Your task to perform on an android device: toggle notifications settings in the gmail app Image 0: 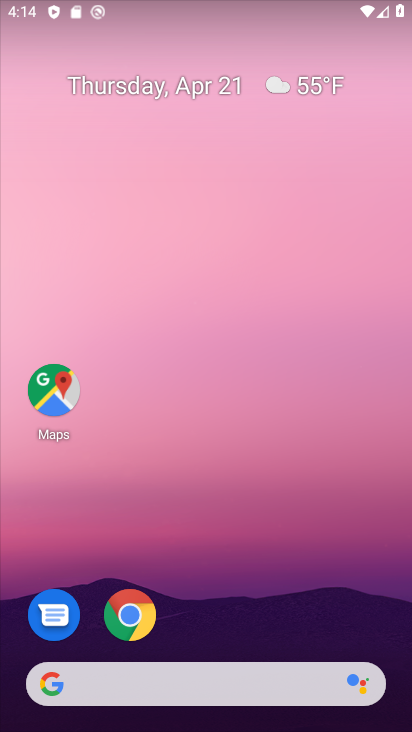
Step 0: drag from (235, 555) to (87, 28)
Your task to perform on an android device: toggle notifications settings in the gmail app Image 1: 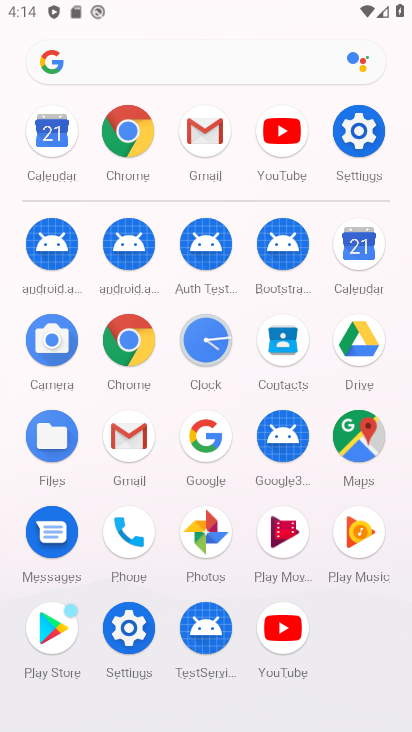
Step 1: click (126, 436)
Your task to perform on an android device: toggle notifications settings in the gmail app Image 2: 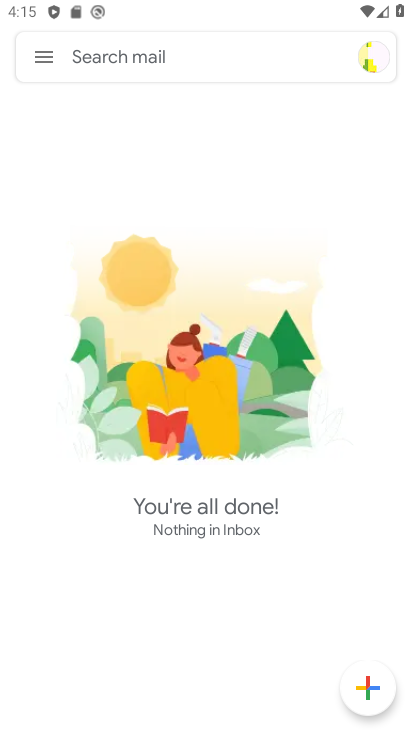
Step 2: click (42, 56)
Your task to perform on an android device: toggle notifications settings in the gmail app Image 3: 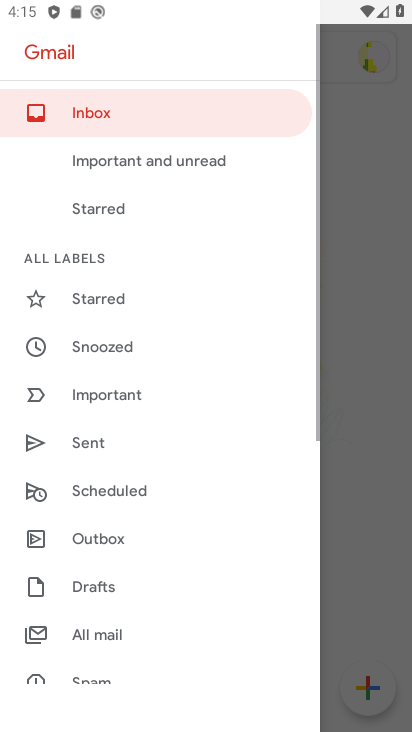
Step 3: drag from (167, 503) to (148, 153)
Your task to perform on an android device: toggle notifications settings in the gmail app Image 4: 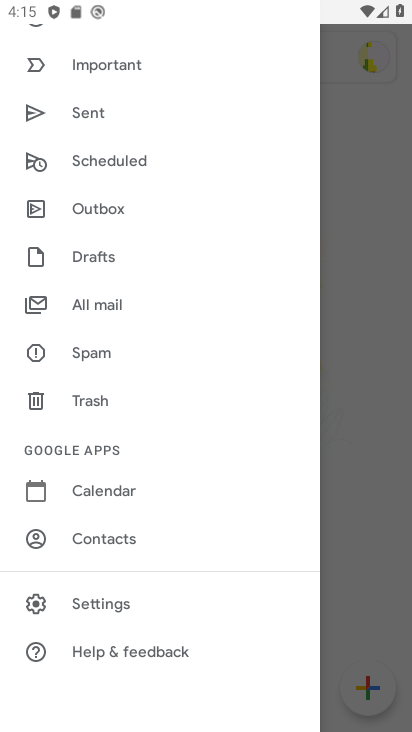
Step 4: drag from (238, 565) to (209, 195)
Your task to perform on an android device: toggle notifications settings in the gmail app Image 5: 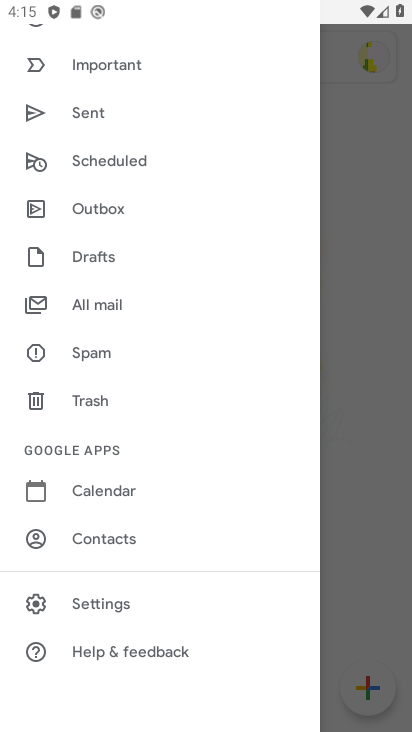
Step 5: click (104, 592)
Your task to perform on an android device: toggle notifications settings in the gmail app Image 6: 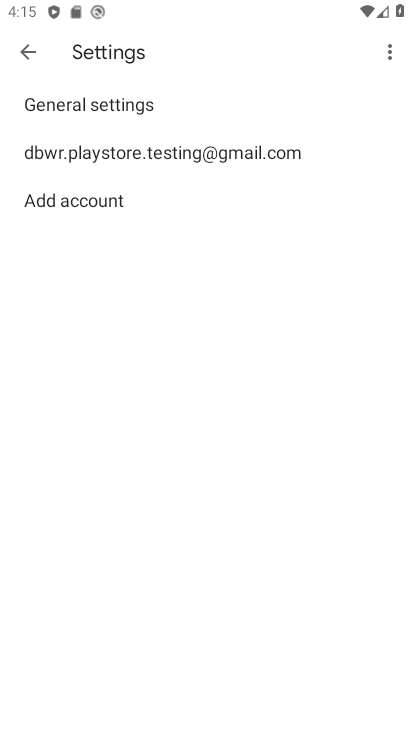
Step 6: click (187, 157)
Your task to perform on an android device: toggle notifications settings in the gmail app Image 7: 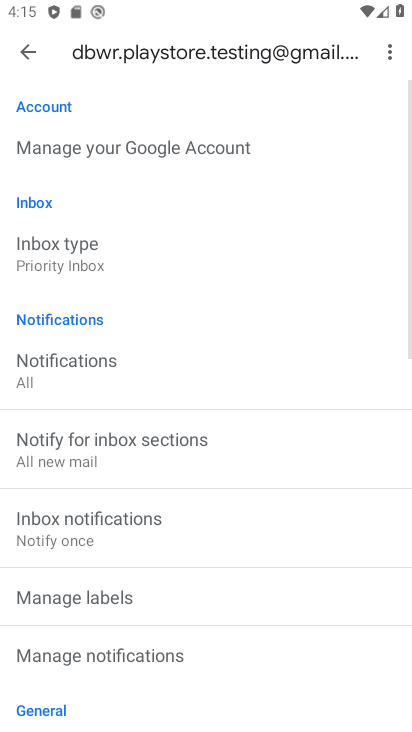
Step 7: drag from (267, 487) to (254, 115)
Your task to perform on an android device: toggle notifications settings in the gmail app Image 8: 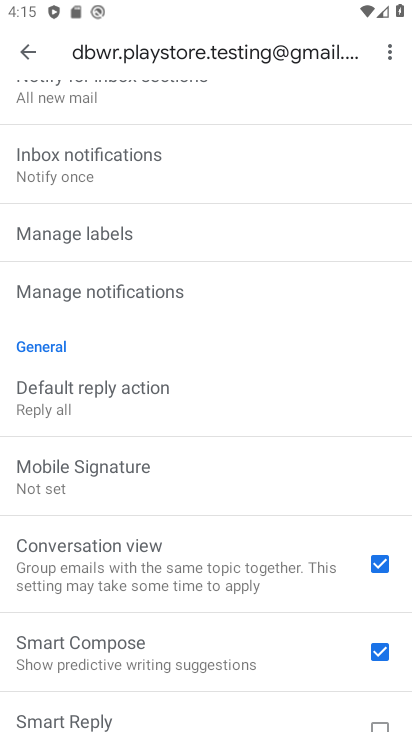
Step 8: drag from (253, 488) to (251, 158)
Your task to perform on an android device: toggle notifications settings in the gmail app Image 9: 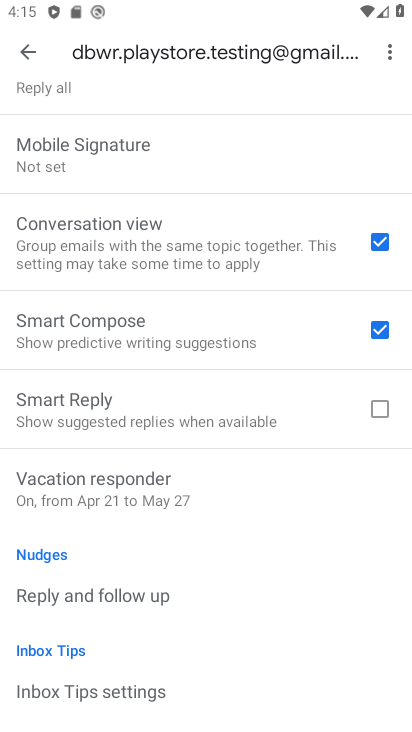
Step 9: drag from (198, 508) to (201, 639)
Your task to perform on an android device: toggle notifications settings in the gmail app Image 10: 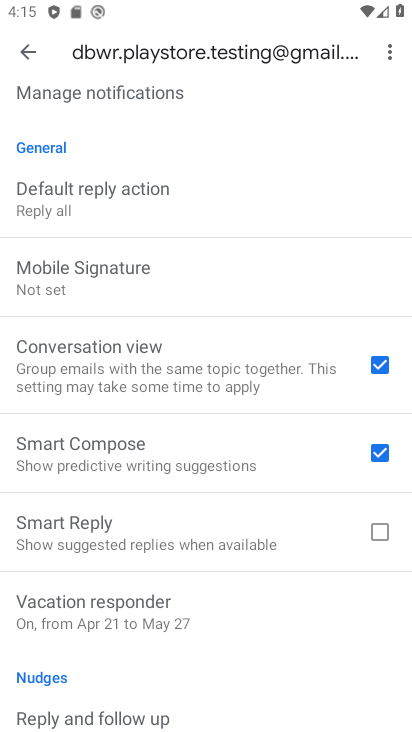
Step 10: drag from (153, 147) to (177, 536)
Your task to perform on an android device: toggle notifications settings in the gmail app Image 11: 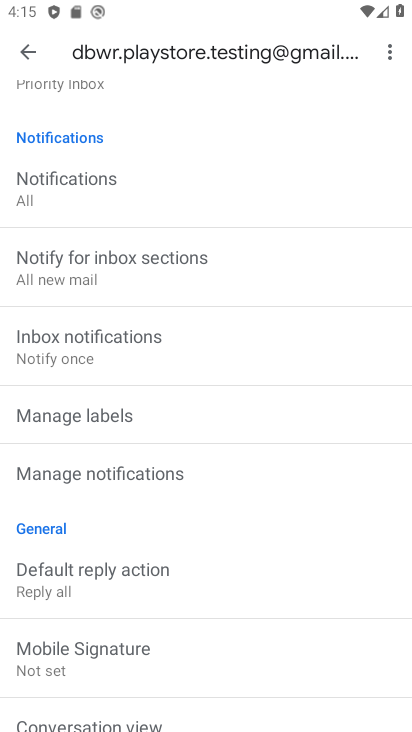
Step 11: click (132, 468)
Your task to perform on an android device: toggle notifications settings in the gmail app Image 12: 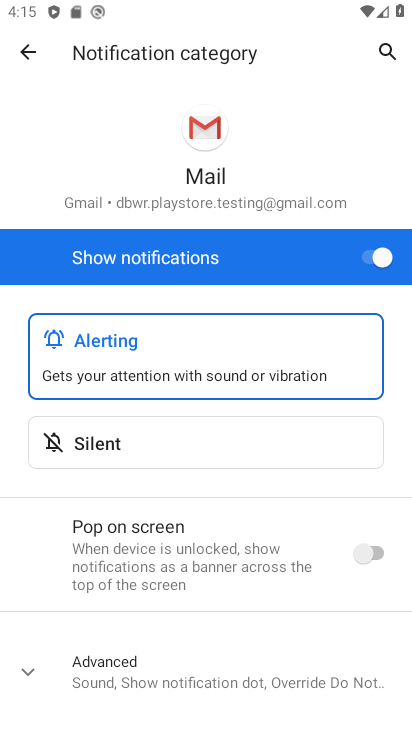
Step 12: drag from (194, 594) to (231, 240)
Your task to perform on an android device: toggle notifications settings in the gmail app Image 13: 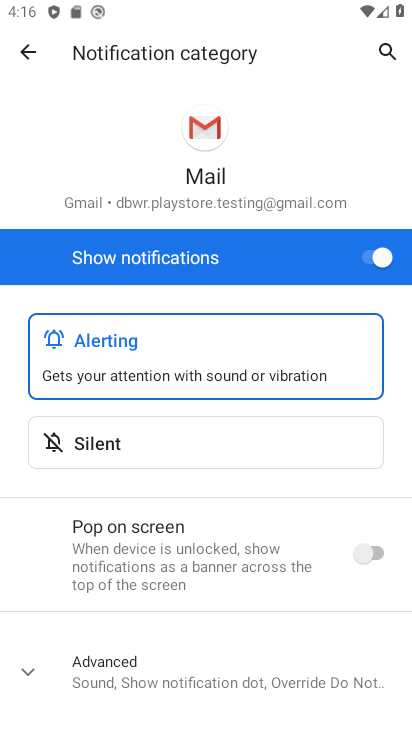
Step 13: click (49, 669)
Your task to perform on an android device: toggle notifications settings in the gmail app Image 14: 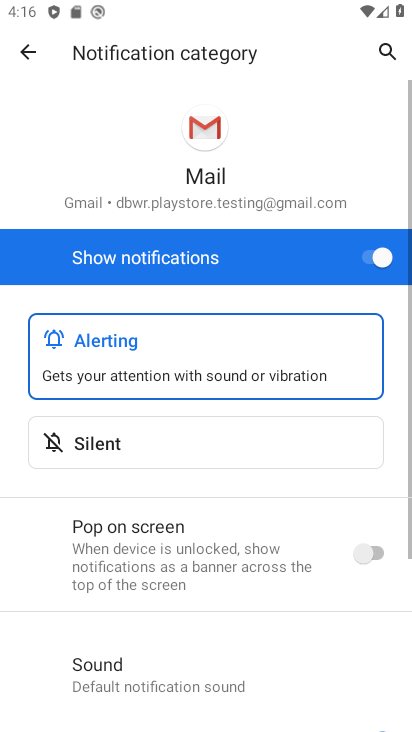
Step 14: drag from (300, 613) to (276, 240)
Your task to perform on an android device: toggle notifications settings in the gmail app Image 15: 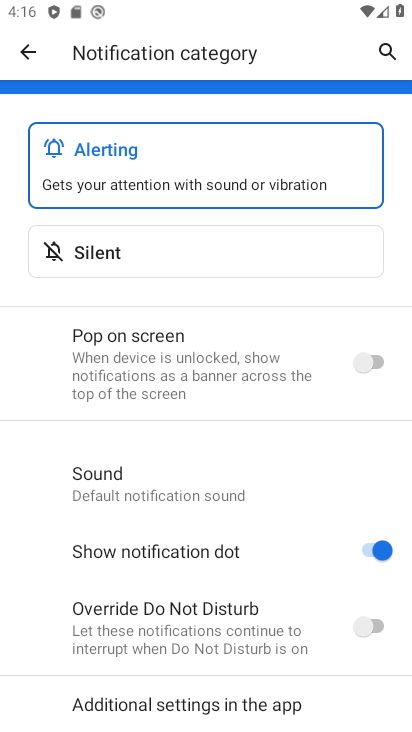
Step 15: drag from (241, 590) to (236, 242)
Your task to perform on an android device: toggle notifications settings in the gmail app Image 16: 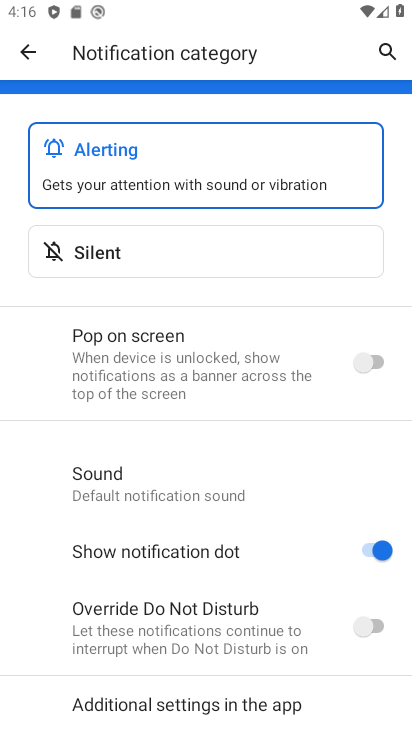
Step 16: drag from (281, 270) to (290, 688)
Your task to perform on an android device: toggle notifications settings in the gmail app Image 17: 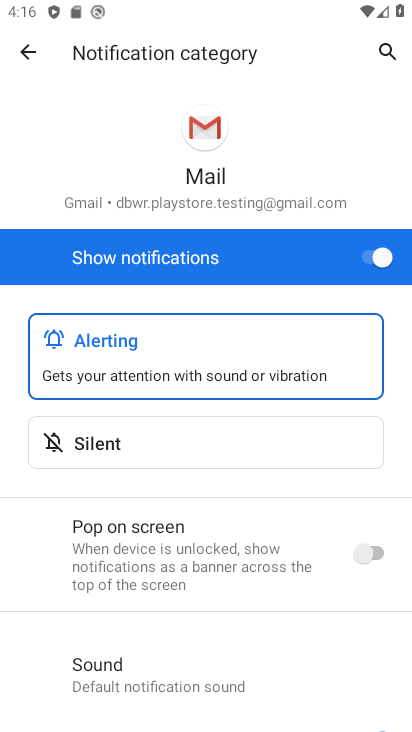
Step 17: click (357, 254)
Your task to perform on an android device: toggle notifications settings in the gmail app Image 18: 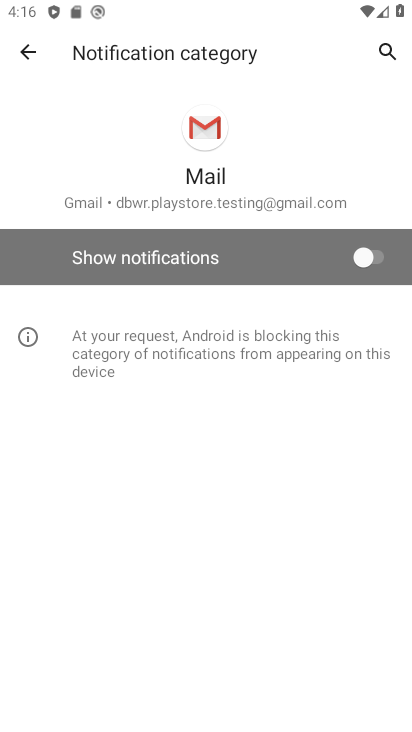
Step 18: task complete